Your task to perform on an android device: Search for Mexican restaurants on Maps Image 0: 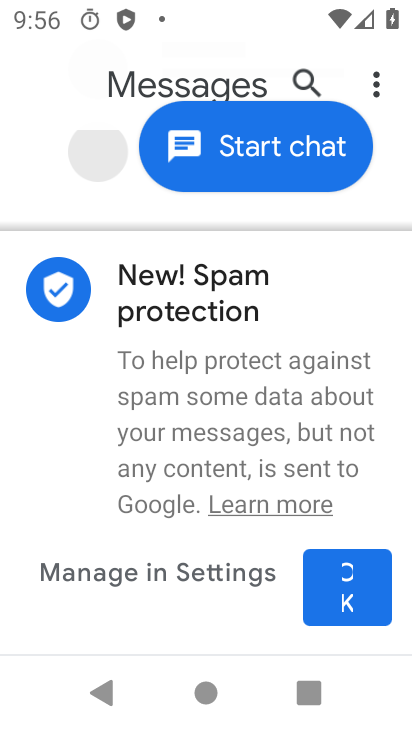
Step 0: press home button
Your task to perform on an android device: Search for Mexican restaurants on Maps Image 1: 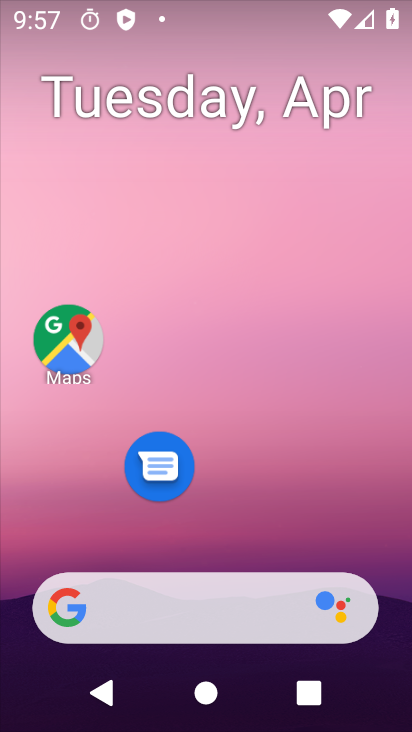
Step 1: drag from (281, 485) to (269, 204)
Your task to perform on an android device: Search for Mexican restaurants on Maps Image 2: 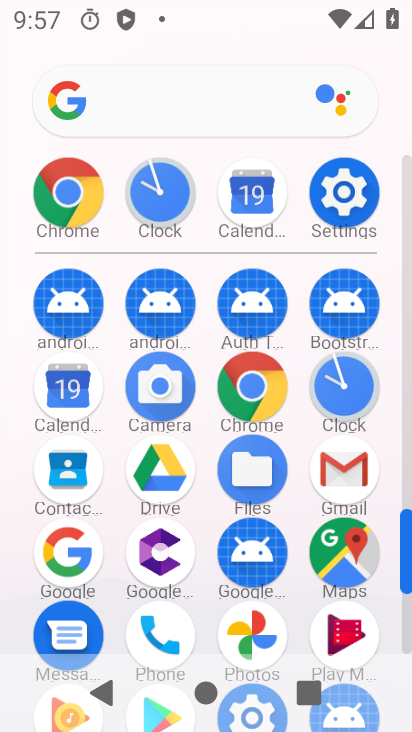
Step 2: click (349, 543)
Your task to perform on an android device: Search for Mexican restaurants on Maps Image 3: 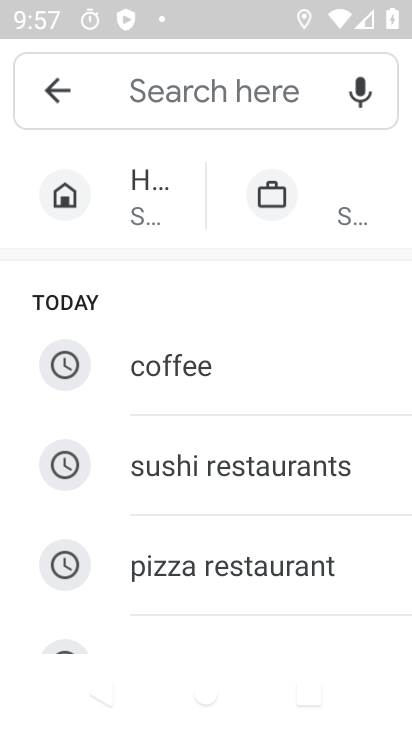
Step 3: click (217, 93)
Your task to perform on an android device: Search for Mexican restaurants on Maps Image 4: 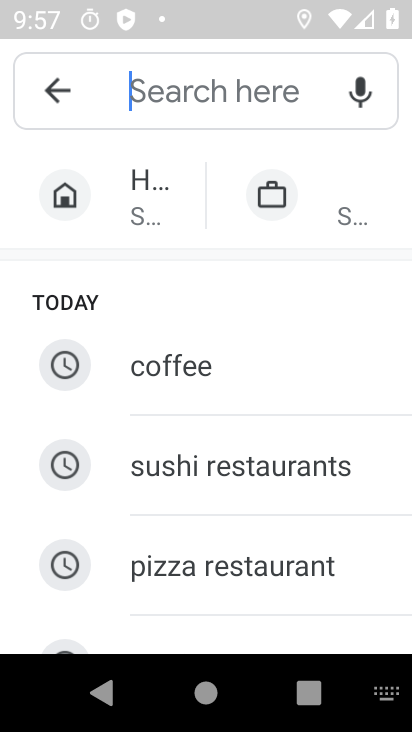
Step 4: type "mexiacn"
Your task to perform on an android device: Search for Mexican restaurants on Maps Image 5: 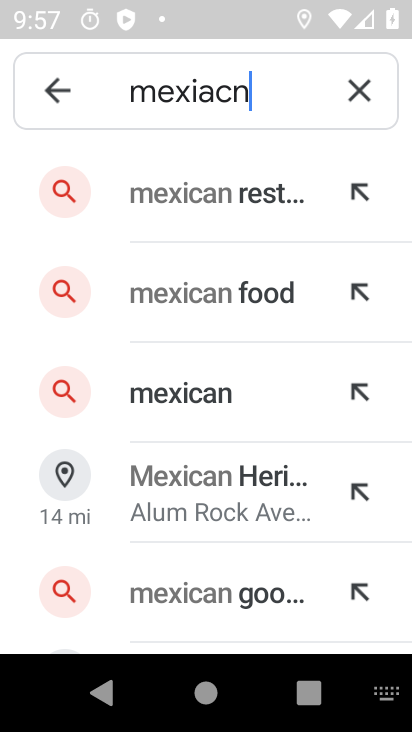
Step 5: click (165, 185)
Your task to perform on an android device: Search for Mexican restaurants on Maps Image 6: 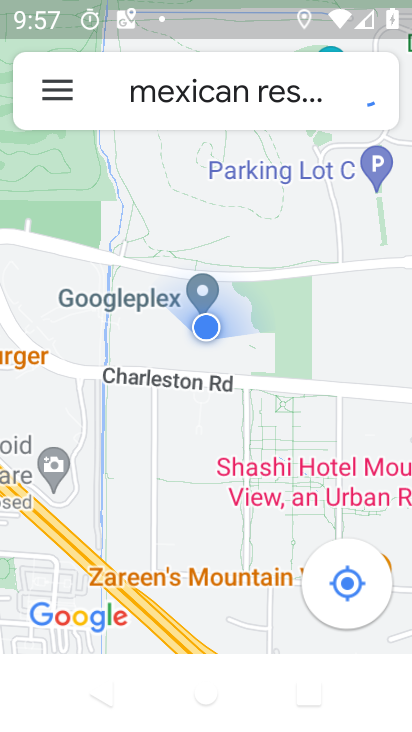
Step 6: task complete